Your task to perform on an android device: Go to display settings Image 0: 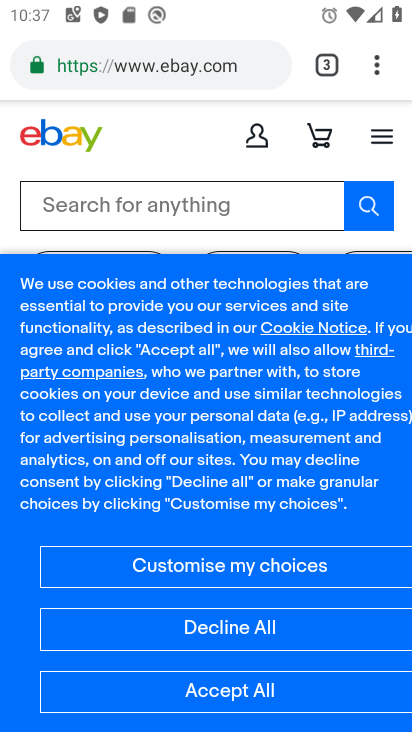
Step 0: press home button
Your task to perform on an android device: Go to display settings Image 1: 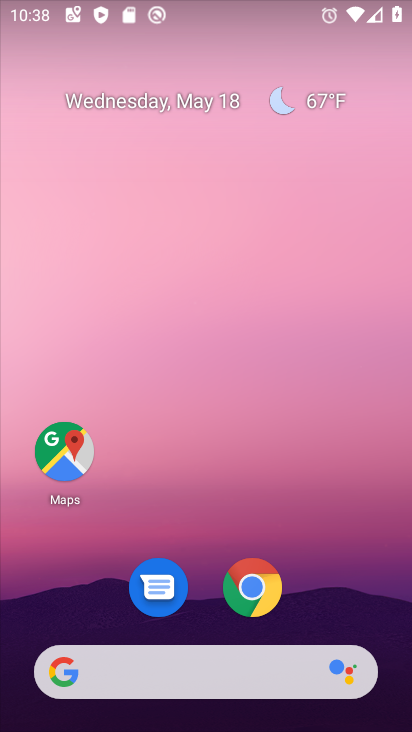
Step 1: drag from (313, 609) to (297, 88)
Your task to perform on an android device: Go to display settings Image 2: 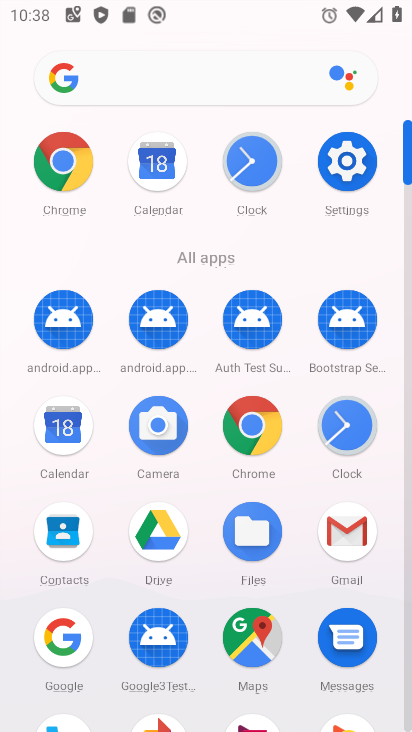
Step 2: click (340, 156)
Your task to perform on an android device: Go to display settings Image 3: 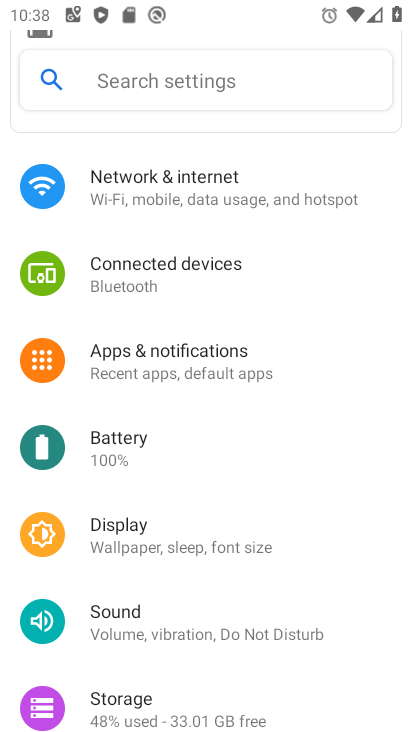
Step 3: click (207, 531)
Your task to perform on an android device: Go to display settings Image 4: 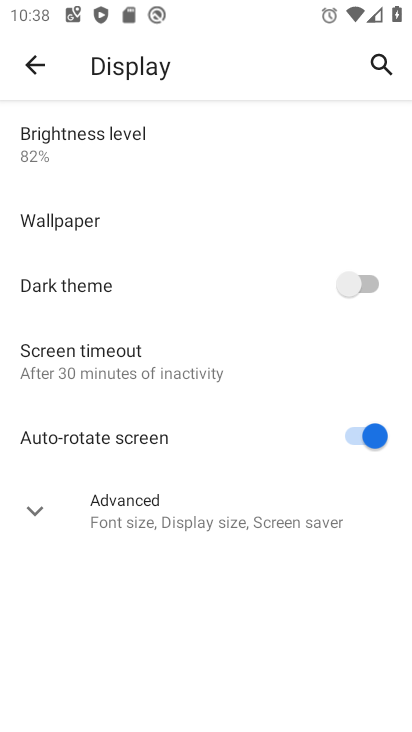
Step 4: task complete